Your task to perform on an android device: snooze an email in the gmail app Image 0: 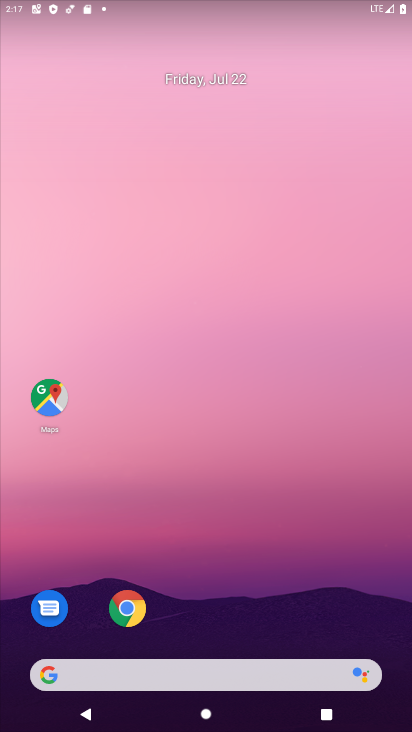
Step 0: drag from (400, 723) to (321, 90)
Your task to perform on an android device: snooze an email in the gmail app Image 1: 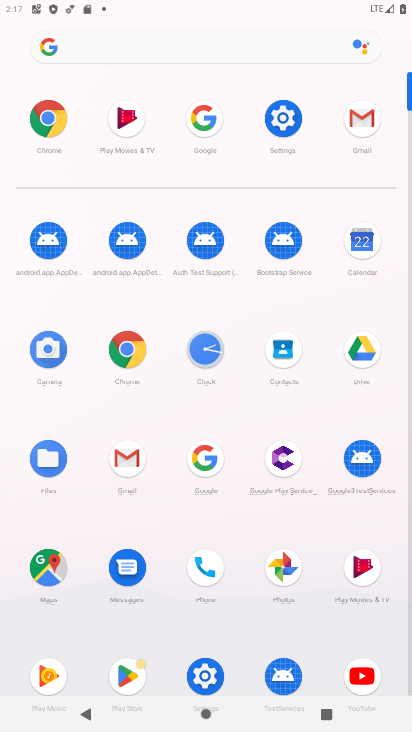
Step 1: click (282, 120)
Your task to perform on an android device: snooze an email in the gmail app Image 2: 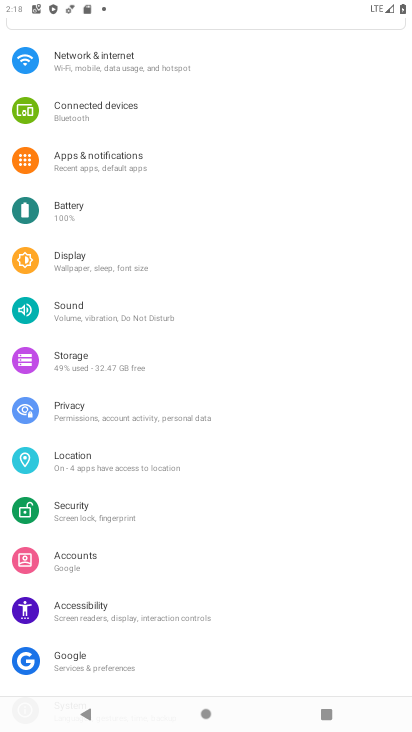
Step 2: press back button
Your task to perform on an android device: snooze an email in the gmail app Image 3: 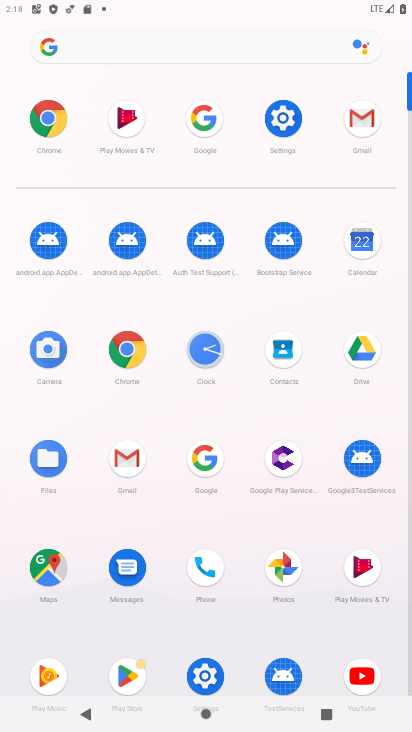
Step 3: click (360, 119)
Your task to perform on an android device: snooze an email in the gmail app Image 4: 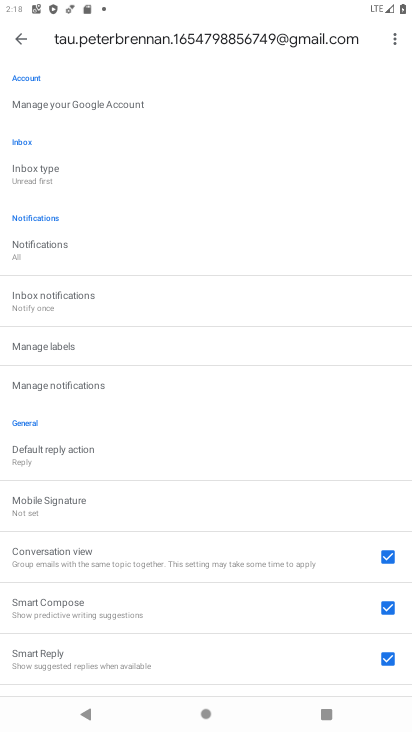
Step 4: drag from (177, 194) to (187, 443)
Your task to perform on an android device: snooze an email in the gmail app Image 5: 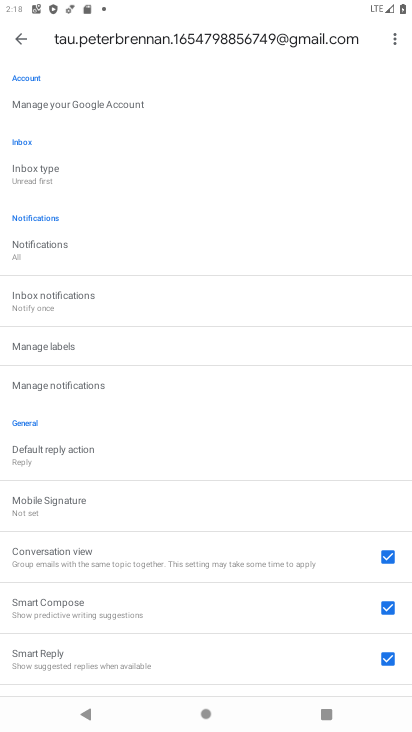
Step 5: click (17, 38)
Your task to perform on an android device: snooze an email in the gmail app Image 6: 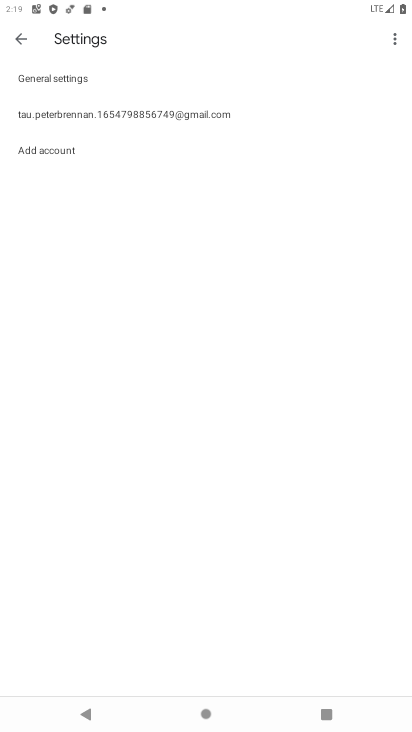
Step 6: click (72, 111)
Your task to perform on an android device: snooze an email in the gmail app Image 7: 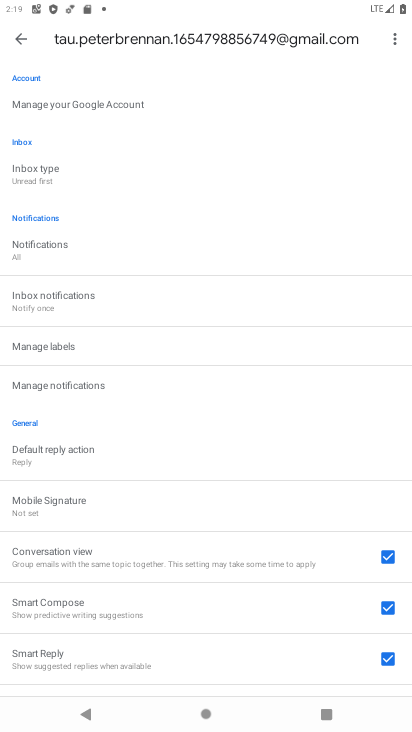
Step 7: drag from (169, 628) to (181, 249)
Your task to perform on an android device: snooze an email in the gmail app Image 8: 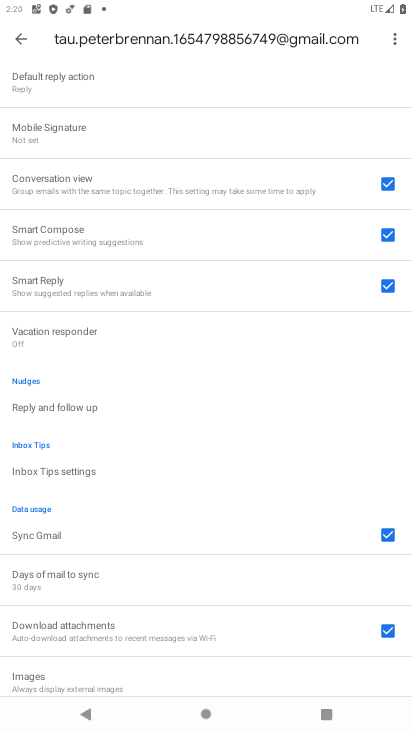
Step 8: drag from (260, 522) to (251, 287)
Your task to perform on an android device: snooze an email in the gmail app Image 9: 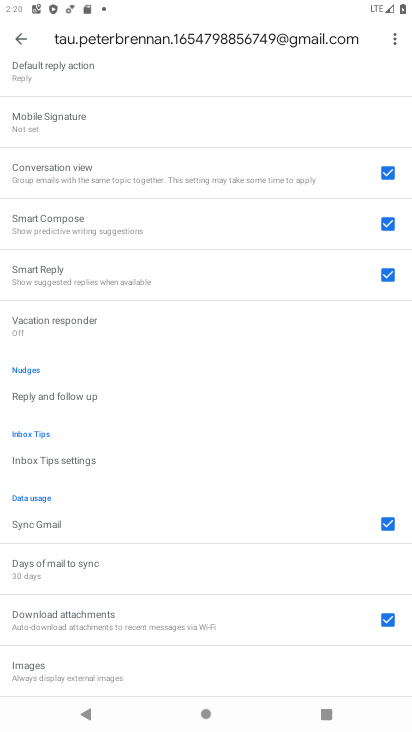
Step 9: drag from (219, 253) to (205, 630)
Your task to perform on an android device: snooze an email in the gmail app Image 10: 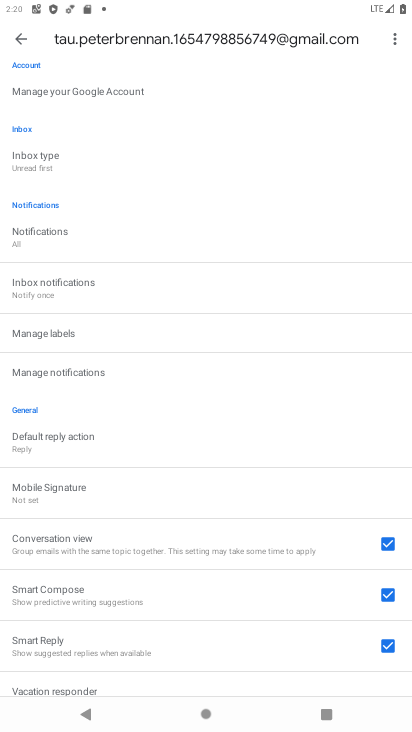
Step 10: click (16, 37)
Your task to perform on an android device: snooze an email in the gmail app Image 11: 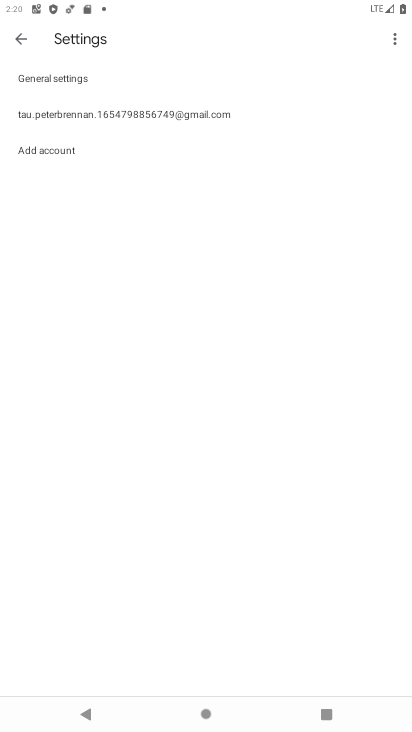
Step 11: click (60, 114)
Your task to perform on an android device: snooze an email in the gmail app Image 12: 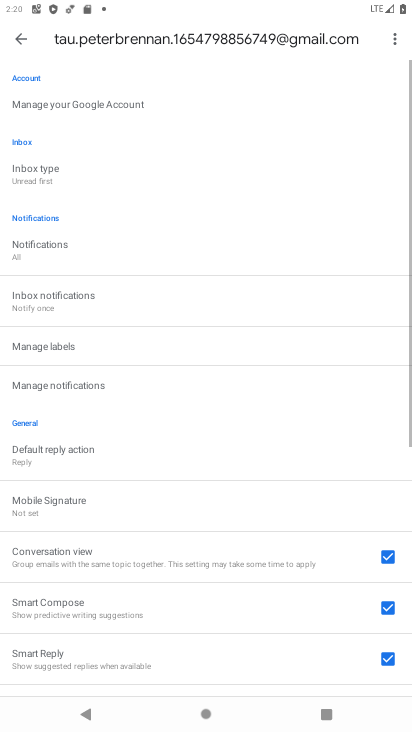
Step 12: click (16, 38)
Your task to perform on an android device: snooze an email in the gmail app Image 13: 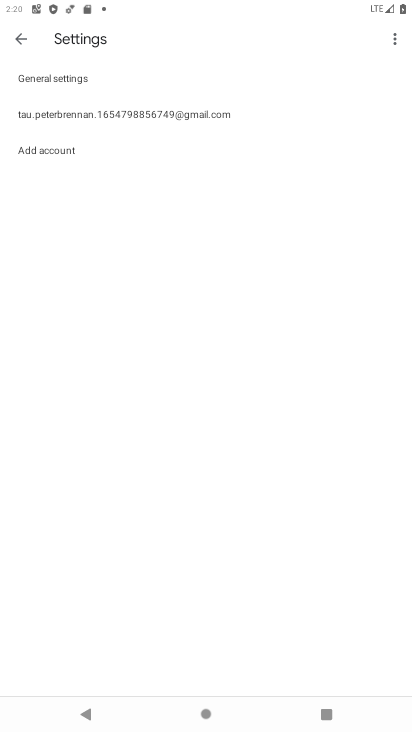
Step 13: click (16, 38)
Your task to perform on an android device: snooze an email in the gmail app Image 14: 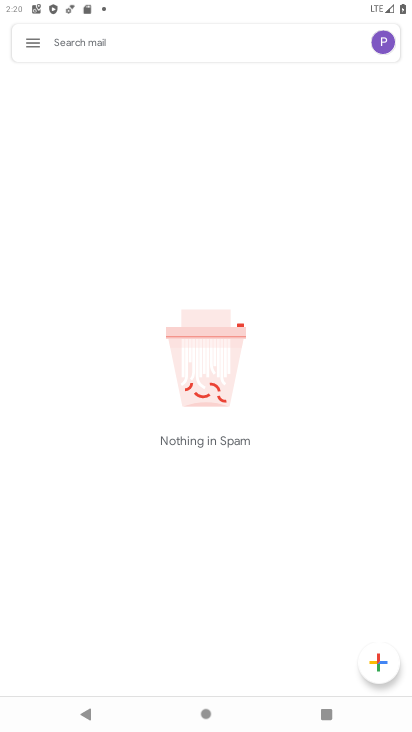
Step 14: click (37, 35)
Your task to perform on an android device: snooze an email in the gmail app Image 15: 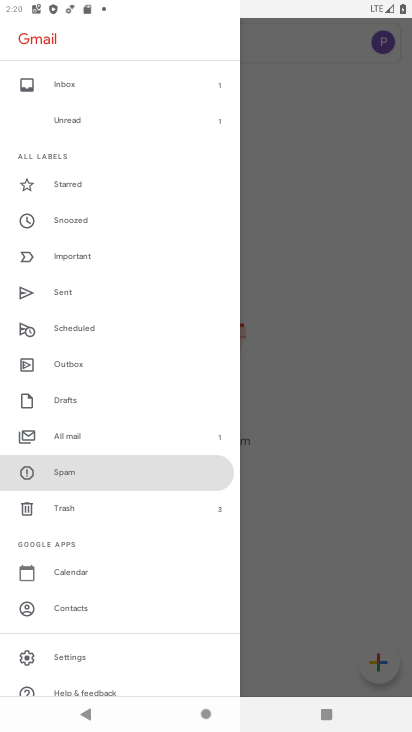
Step 15: click (323, 342)
Your task to perform on an android device: snooze an email in the gmail app Image 16: 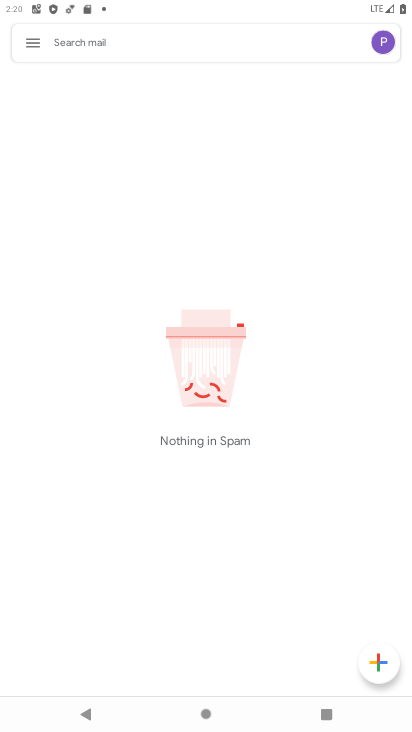
Step 16: task complete